Your task to perform on an android device: Open Google Maps and go to "Timeline" Image 0: 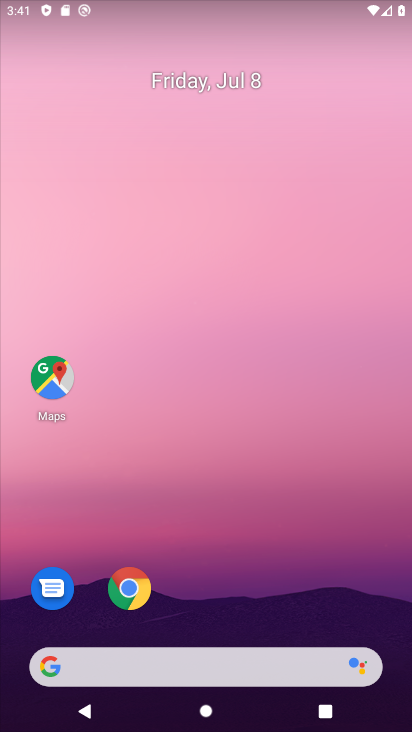
Step 0: click (59, 377)
Your task to perform on an android device: Open Google Maps and go to "Timeline" Image 1: 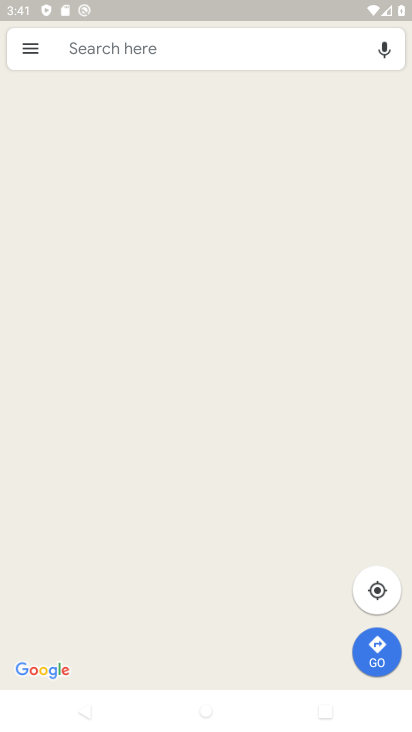
Step 1: click (23, 42)
Your task to perform on an android device: Open Google Maps and go to "Timeline" Image 2: 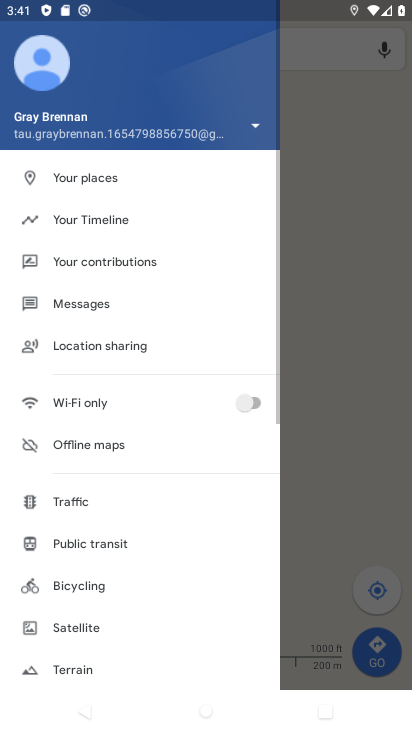
Step 2: click (110, 215)
Your task to perform on an android device: Open Google Maps and go to "Timeline" Image 3: 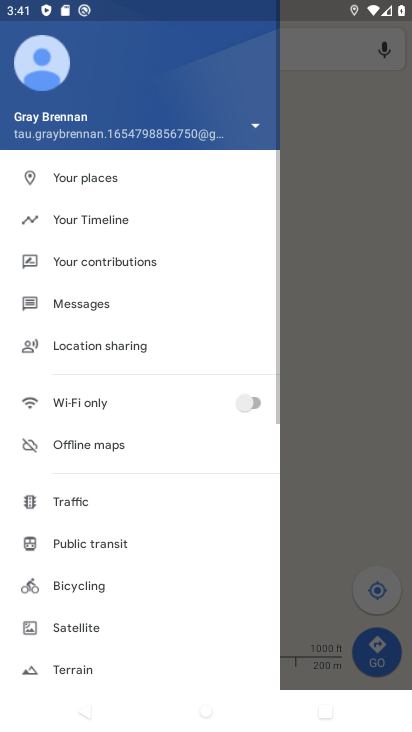
Step 3: click (98, 229)
Your task to perform on an android device: Open Google Maps and go to "Timeline" Image 4: 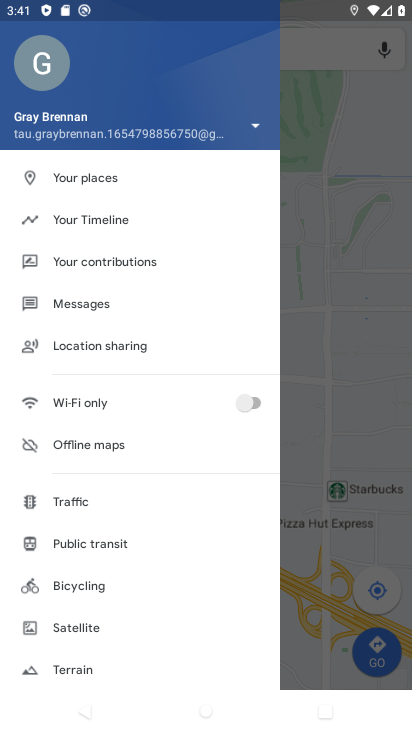
Step 4: click (97, 229)
Your task to perform on an android device: Open Google Maps and go to "Timeline" Image 5: 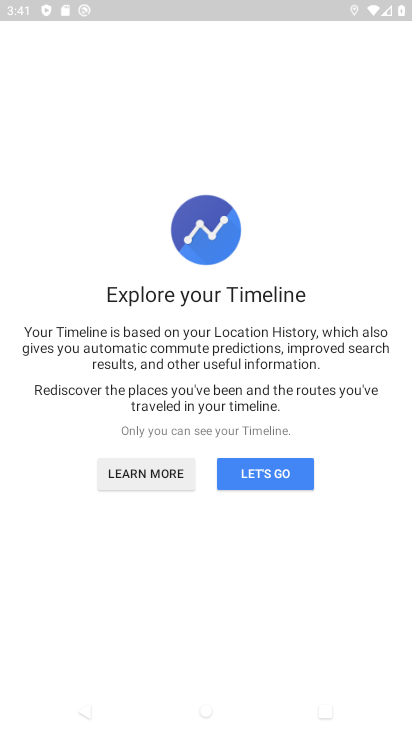
Step 5: click (267, 468)
Your task to perform on an android device: Open Google Maps and go to "Timeline" Image 6: 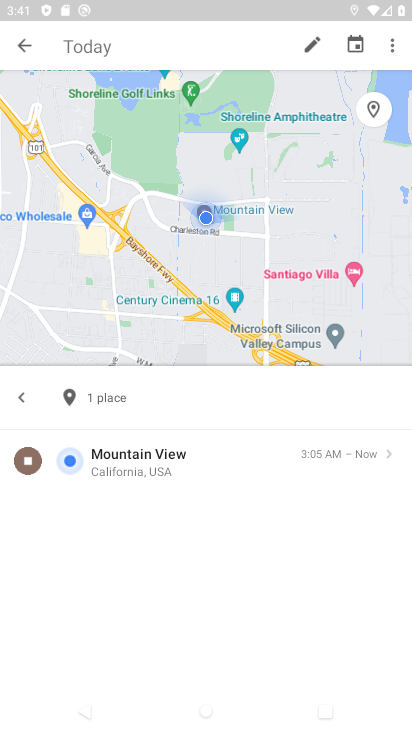
Step 6: task complete